Your task to perform on an android device: Search for "bose quietcomfort 35" on walmart.com, select the first entry, and add it to the cart. Image 0: 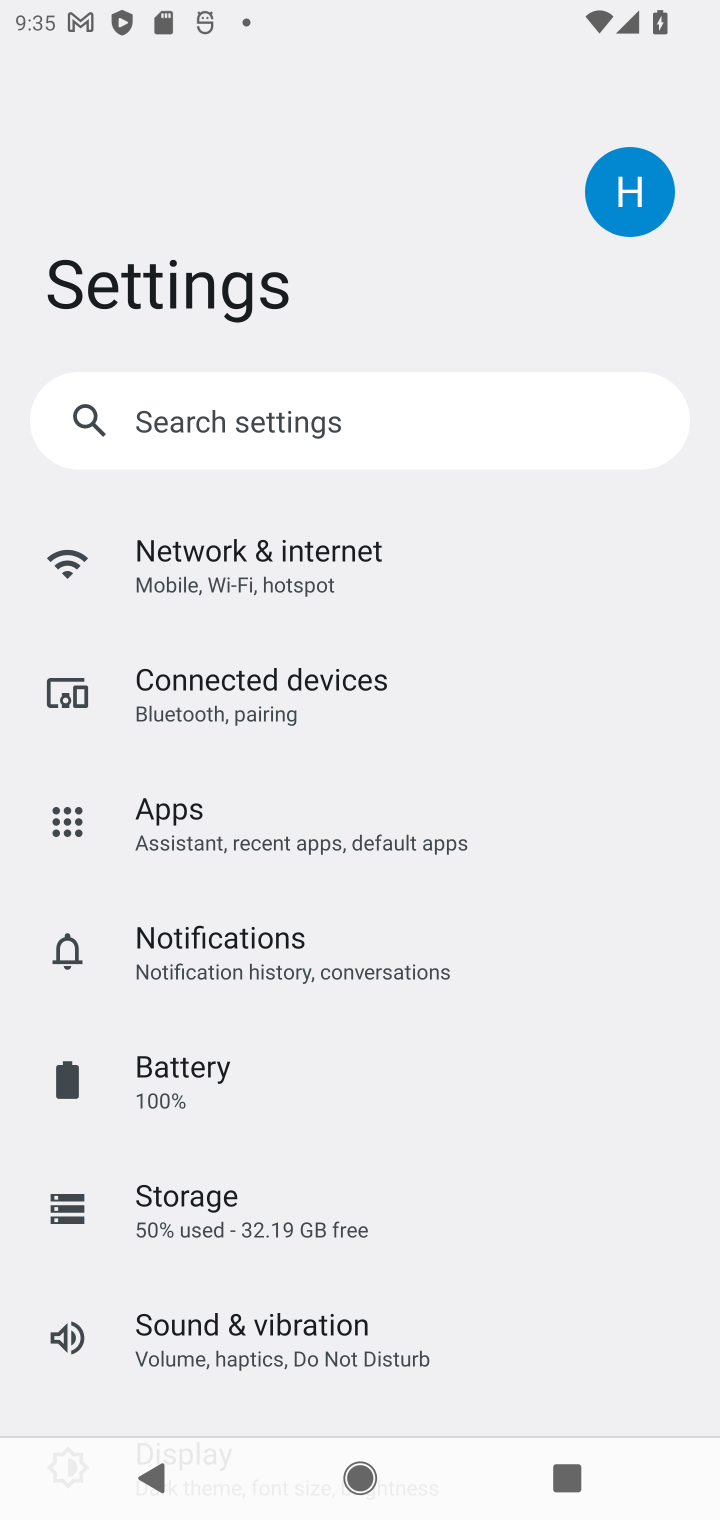
Step 0: press home button
Your task to perform on an android device: Search for "bose quietcomfort 35" on walmart.com, select the first entry, and add it to the cart. Image 1: 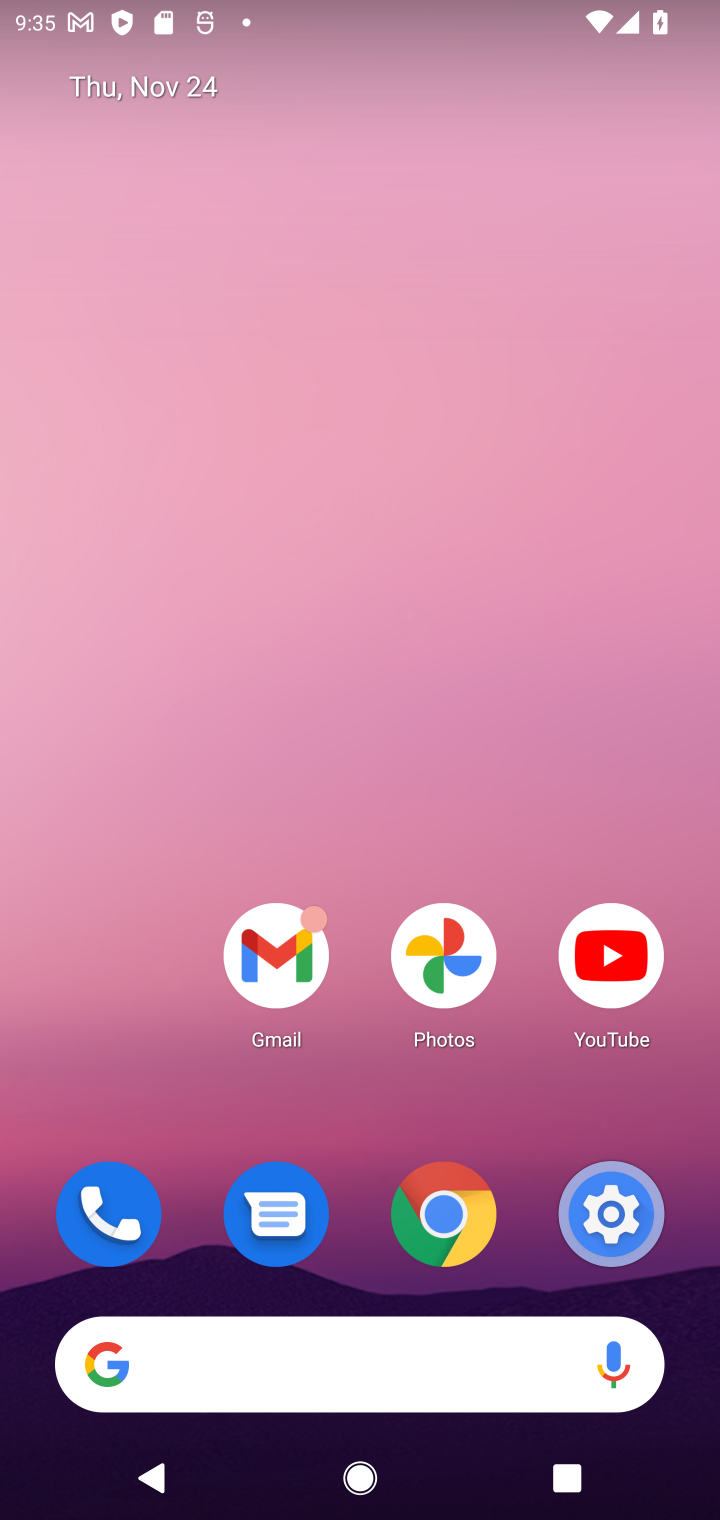
Step 1: click (321, 1347)
Your task to perform on an android device: Search for "bose quietcomfort 35" on walmart.com, select the first entry, and add it to the cart. Image 2: 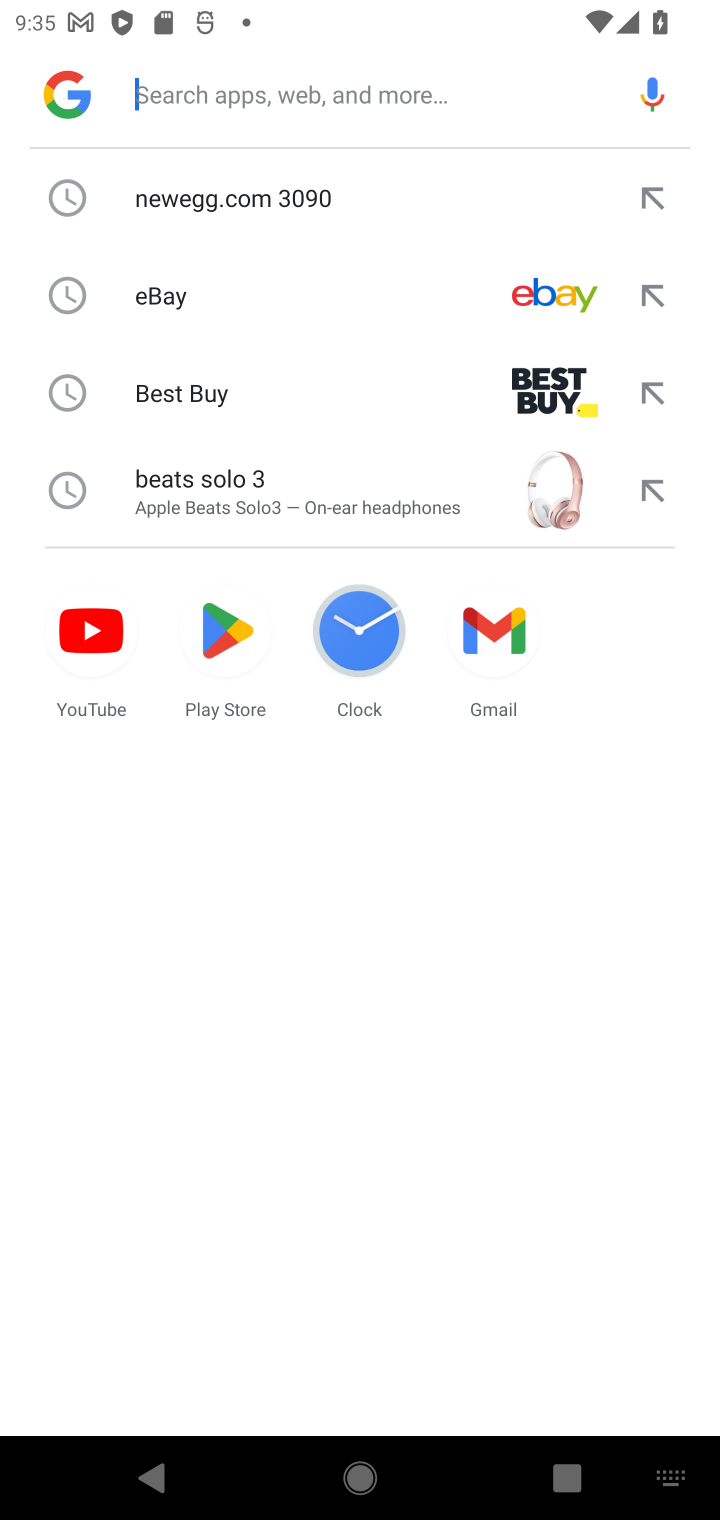
Step 2: type "walmart"
Your task to perform on an android device: Search for "bose quietcomfort 35" on walmart.com, select the first entry, and add it to the cart. Image 3: 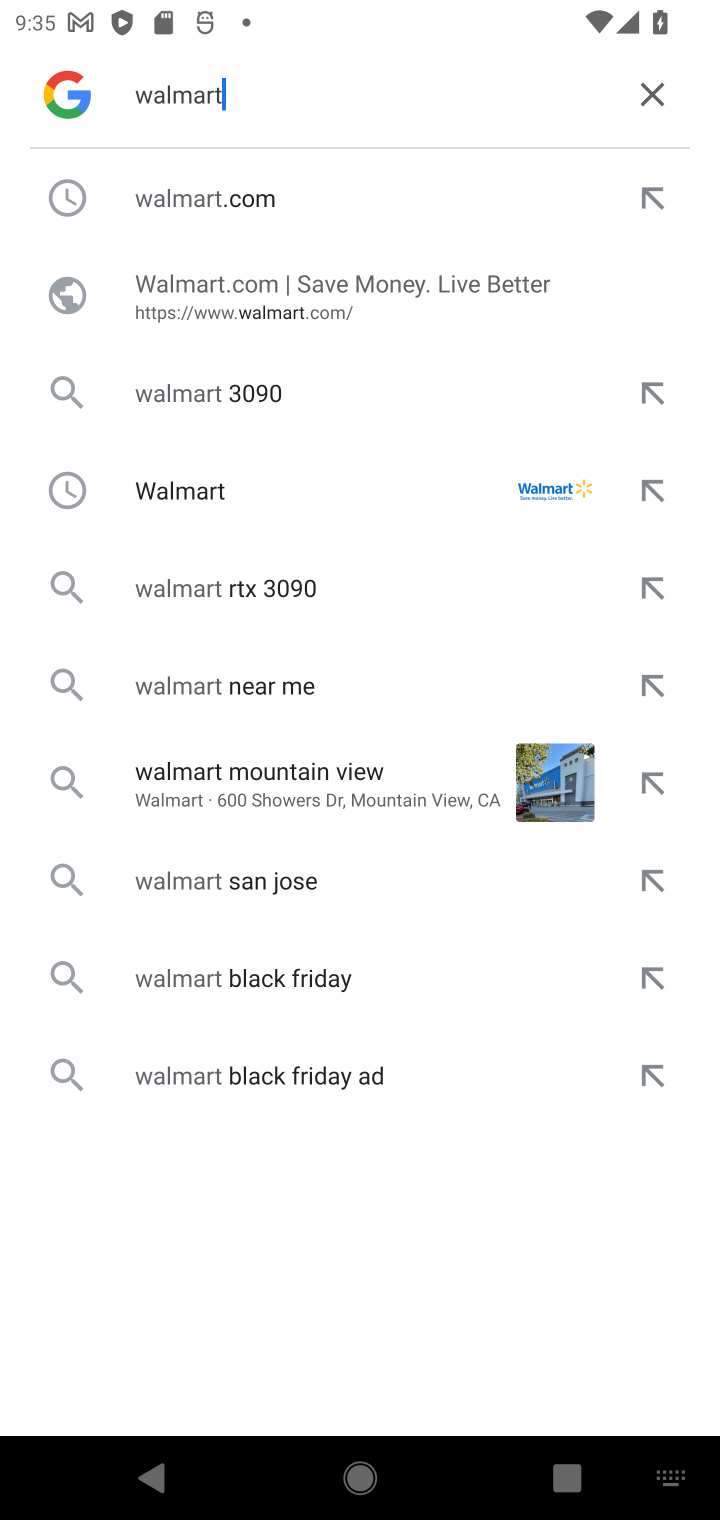
Step 3: click (170, 181)
Your task to perform on an android device: Search for "bose quietcomfort 35" on walmart.com, select the first entry, and add it to the cart. Image 4: 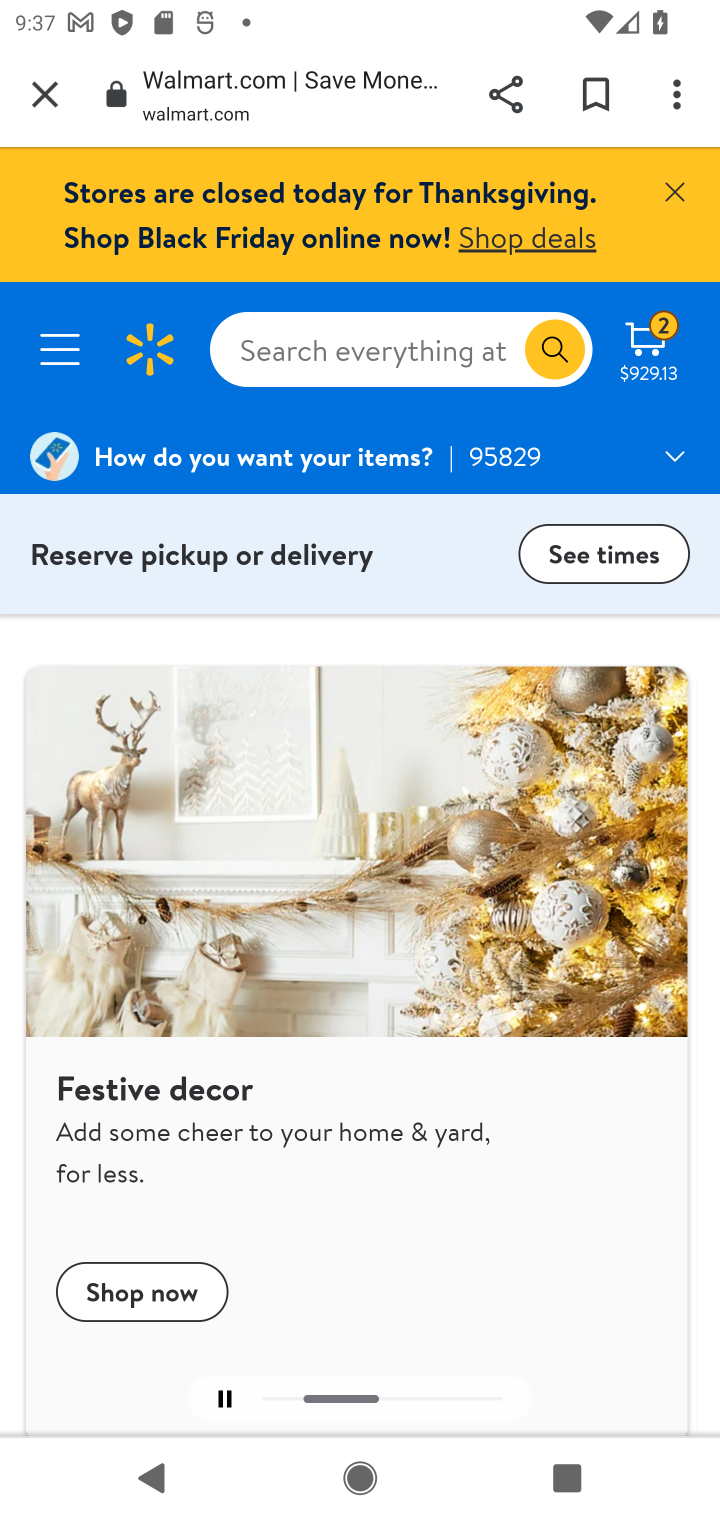
Step 4: task complete